Your task to perform on an android device: turn on showing notifications on the lock screen Image 0: 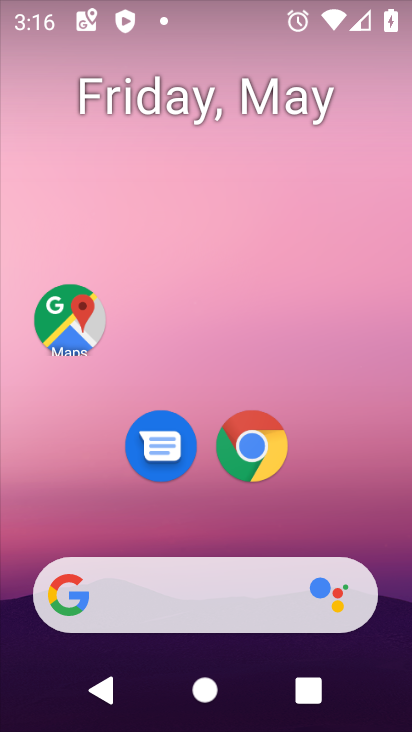
Step 0: drag from (400, 574) to (296, 4)
Your task to perform on an android device: turn on showing notifications on the lock screen Image 1: 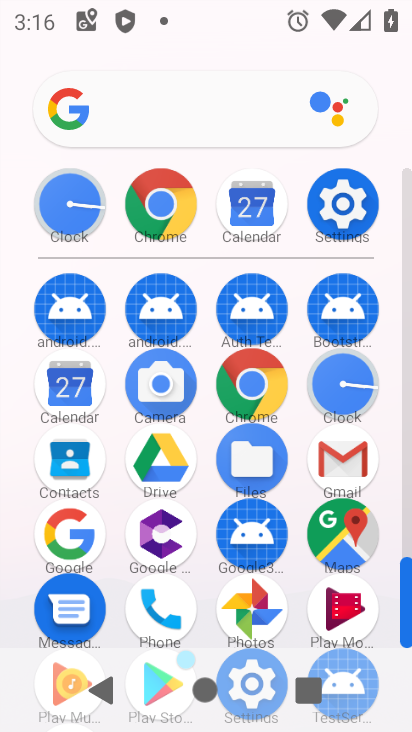
Step 1: click (360, 196)
Your task to perform on an android device: turn on showing notifications on the lock screen Image 2: 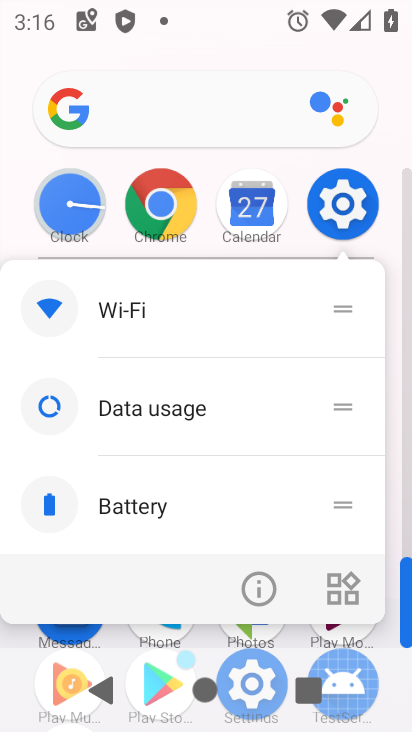
Step 2: click (360, 196)
Your task to perform on an android device: turn on showing notifications on the lock screen Image 3: 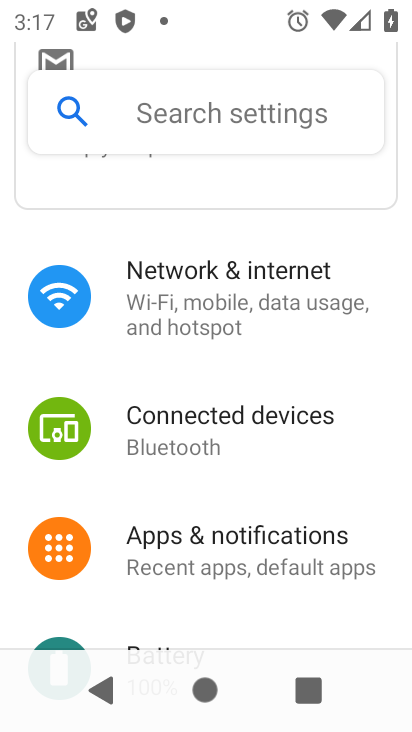
Step 3: click (271, 542)
Your task to perform on an android device: turn on showing notifications on the lock screen Image 4: 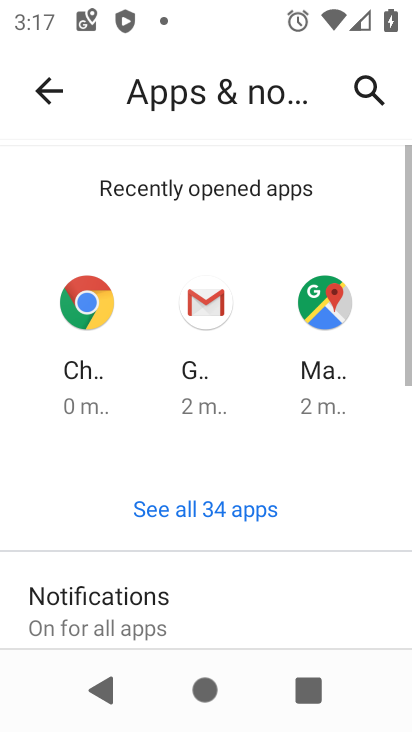
Step 4: drag from (284, 576) to (217, 149)
Your task to perform on an android device: turn on showing notifications on the lock screen Image 5: 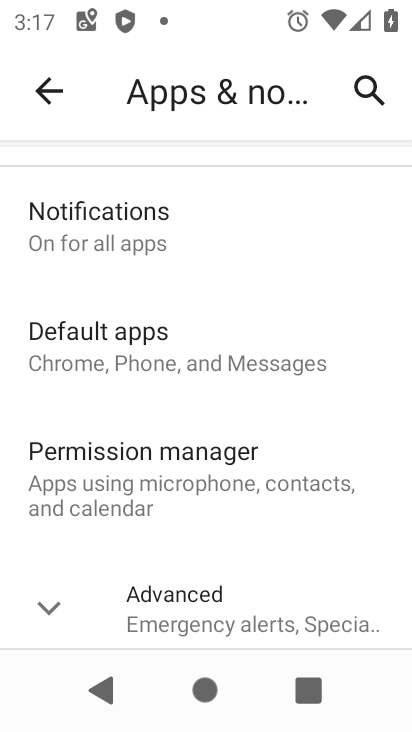
Step 5: click (222, 218)
Your task to perform on an android device: turn on showing notifications on the lock screen Image 6: 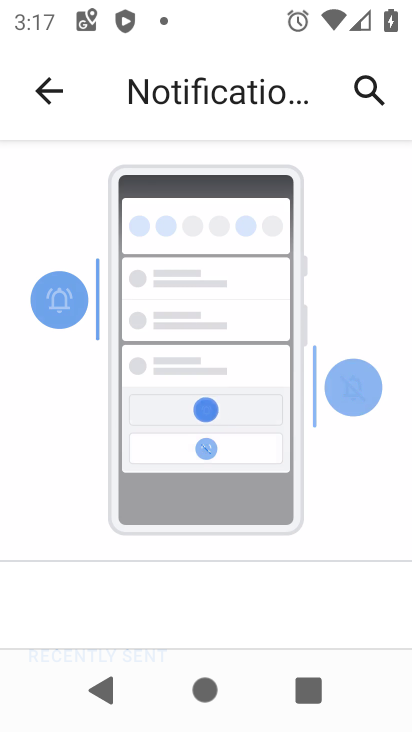
Step 6: drag from (289, 576) to (254, 111)
Your task to perform on an android device: turn on showing notifications on the lock screen Image 7: 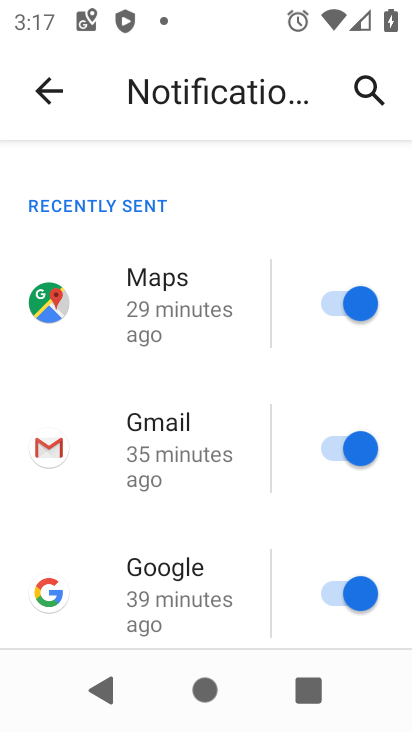
Step 7: drag from (256, 596) to (241, 179)
Your task to perform on an android device: turn on showing notifications on the lock screen Image 8: 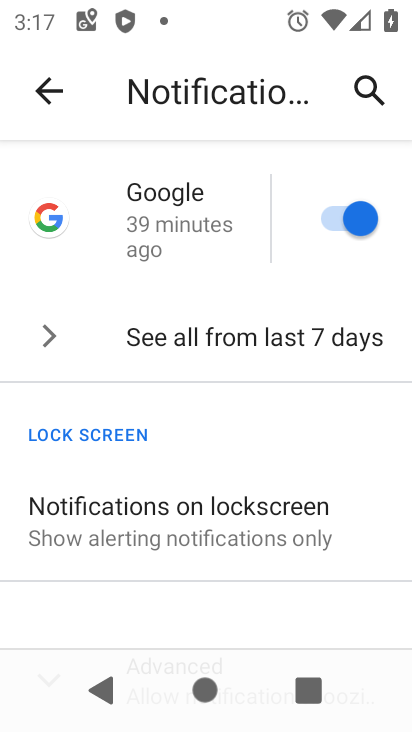
Step 8: click (307, 529)
Your task to perform on an android device: turn on showing notifications on the lock screen Image 9: 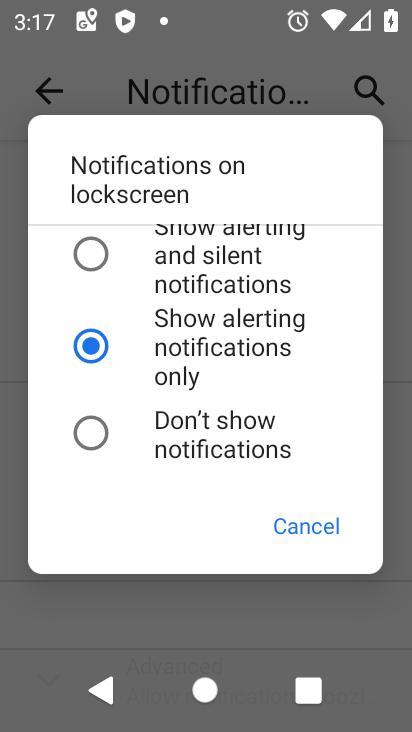
Step 9: task complete